Your task to perform on an android device: Toggle the flashlight Image 0: 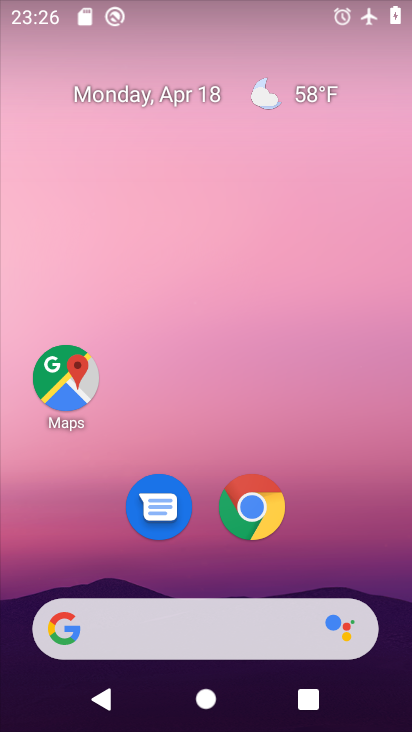
Step 0: drag from (243, 16) to (200, 638)
Your task to perform on an android device: Toggle the flashlight Image 1: 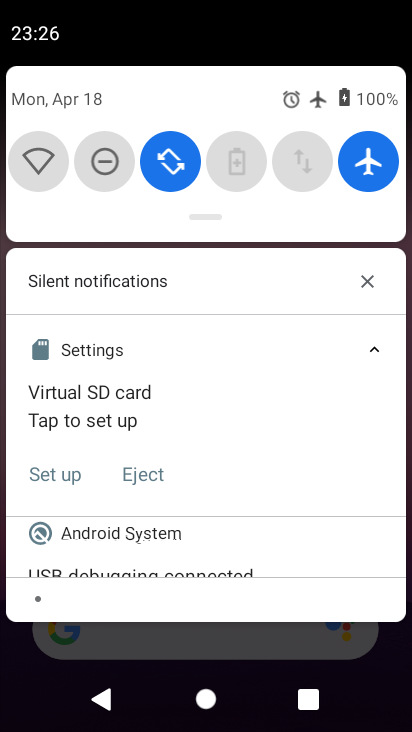
Step 1: drag from (262, 106) to (194, 609)
Your task to perform on an android device: Toggle the flashlight Image 2: 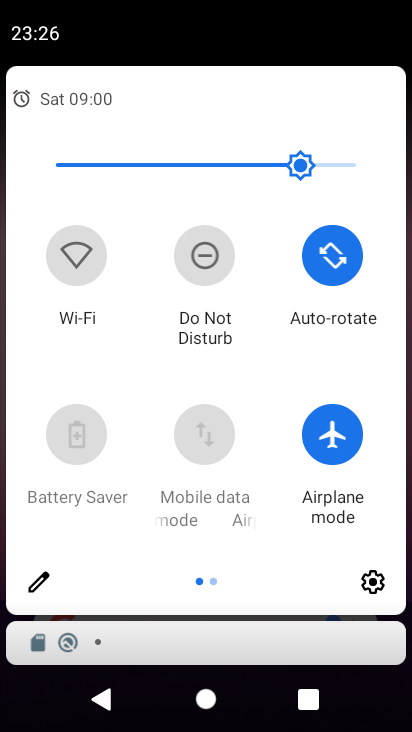
Step 2: click (375, 576)
Your task to perform on an android device: Toggle the flashlight Image 3: 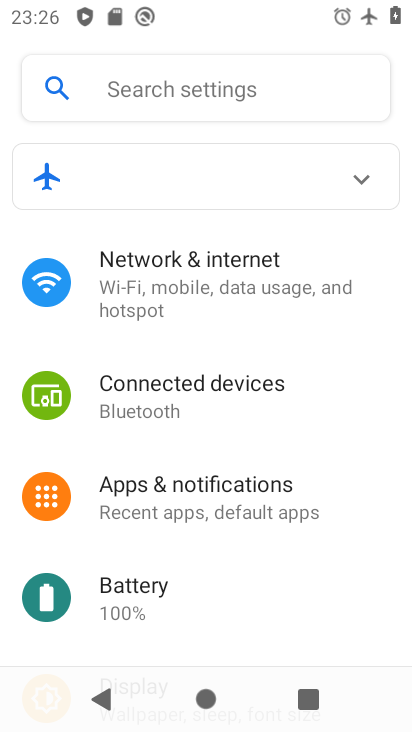
Step 3: task complete